Your task to perform on an android device: Open Google Chrome and open the bookmarks view Image 0: 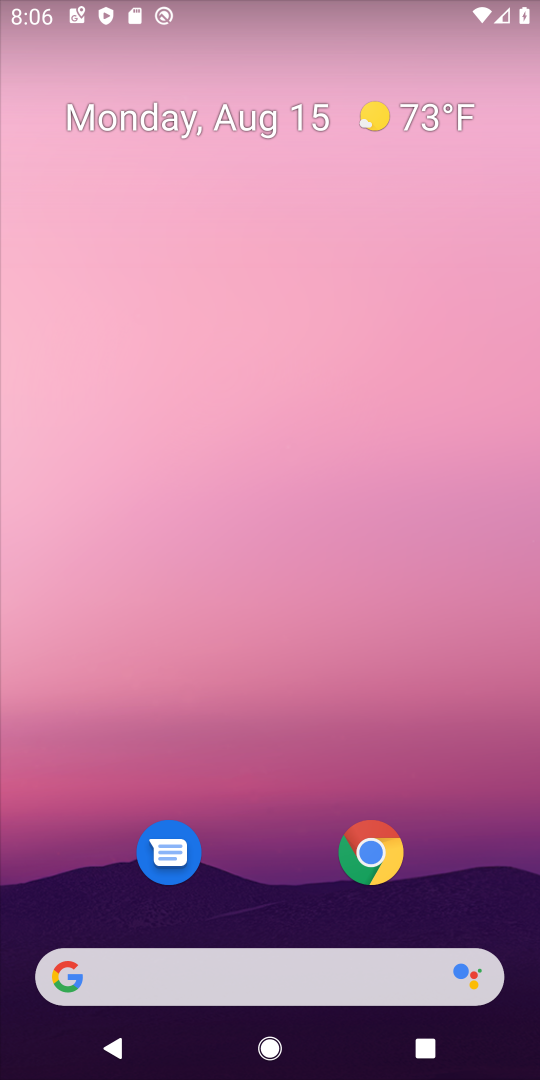
Step 0: click (369, 859)
Your task to perform on an android device: Open Google Chrome and open the bookmarks view Image 1: 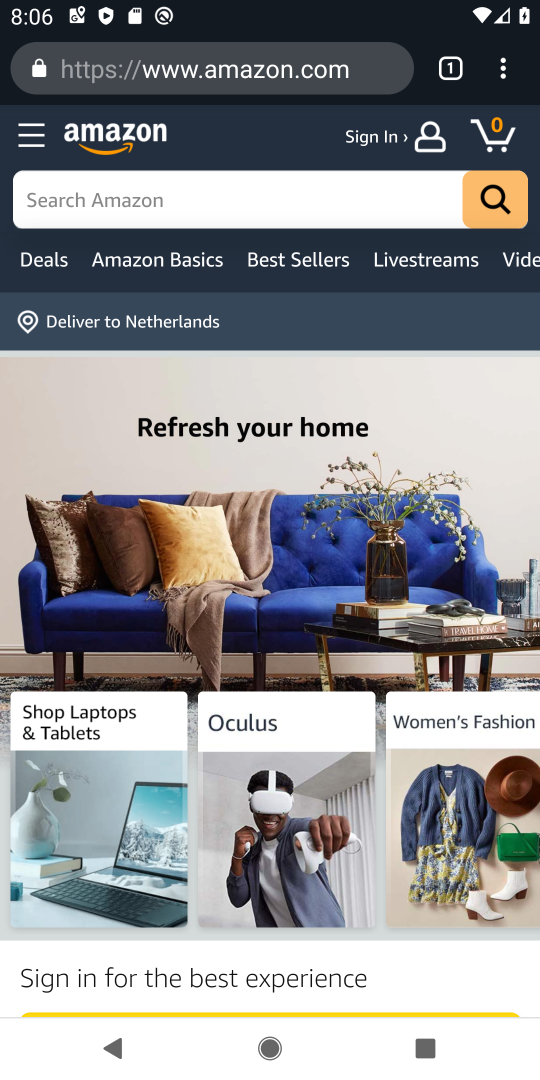
Step 1: click (505, 68)
Your task to perform on an android device: Open Google Chrome and open the bookmarks view Image 2: 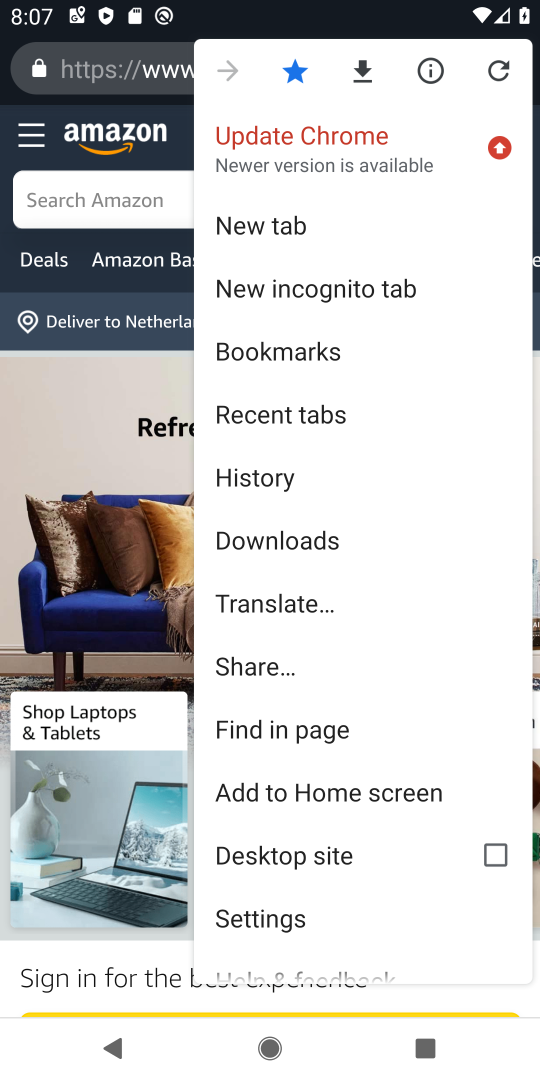
Step 2: click (302, 350)
Your task to perform on an android device: Open Google Chrome and open the bookmarks view Image 3: 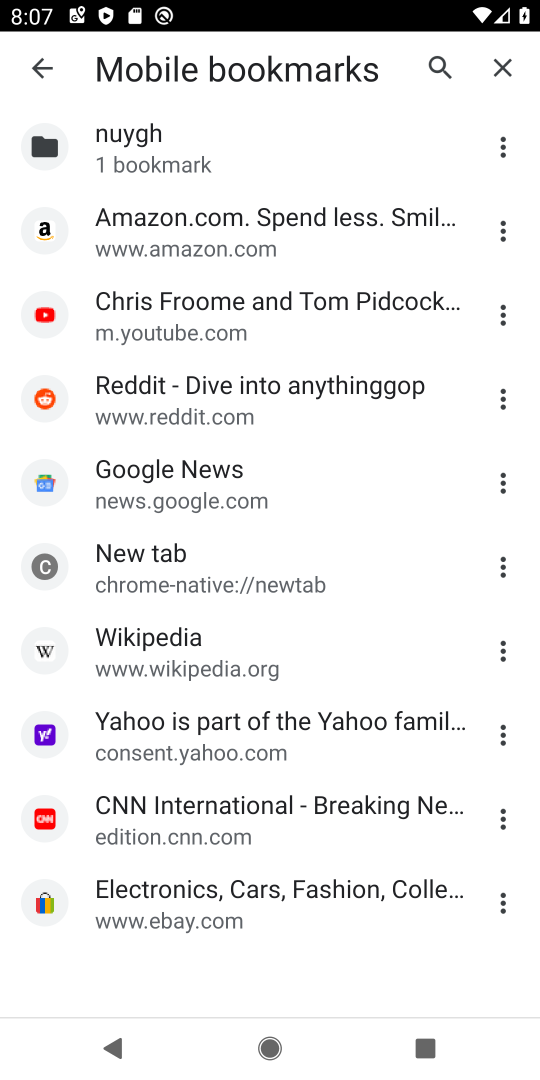
Step 3: task complete